Your task to perform on an android device: Open the stopwatch Image 0: 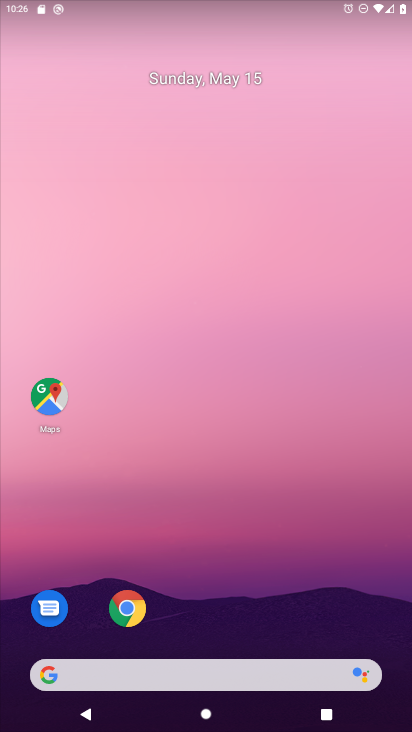
Step 0: drag from (351, 532) to (349, 106)
Your task to perform on an android device: Open the stopwatch Image 1: 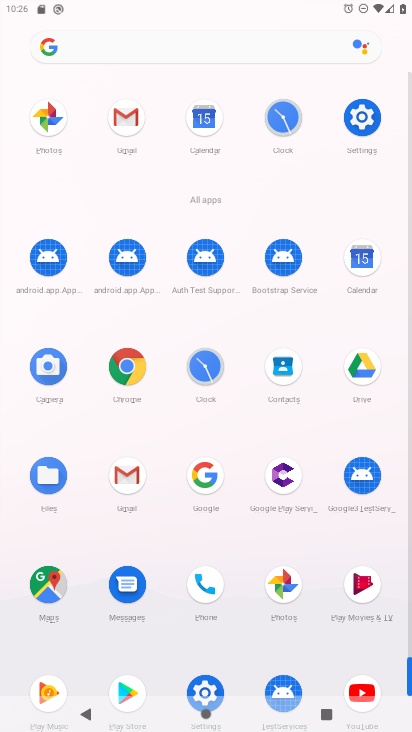
Step 1: click (283, 123)
Your task to perform on an android device: Open the stopwatch Image 2: 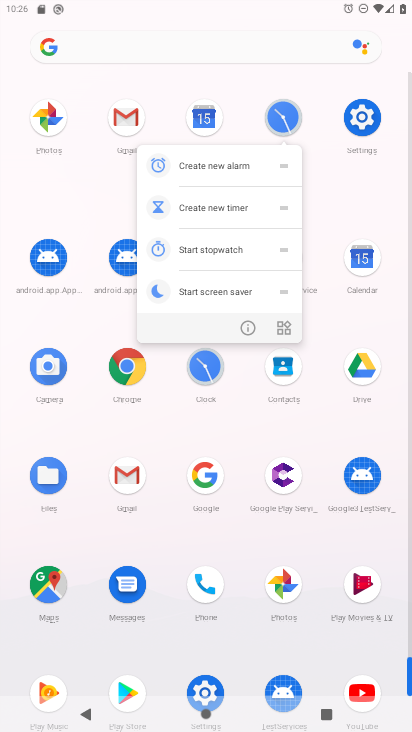
Step 2: click (288, 125)
Your task to perform on an android device: Open the stopwatch Image 3: 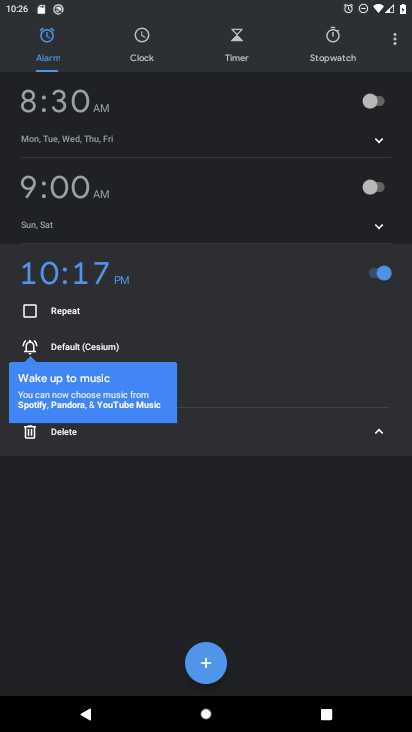
Step 3: click (328, 50)
Your task to perform on an android device: Open the stopwatch Image 4: 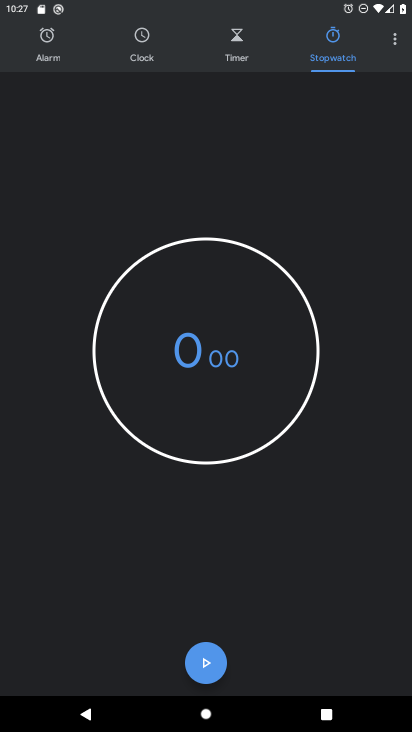
Step 4: click (209, 666)
Your task to perform on an android device: Open the stopwatch Image 5: 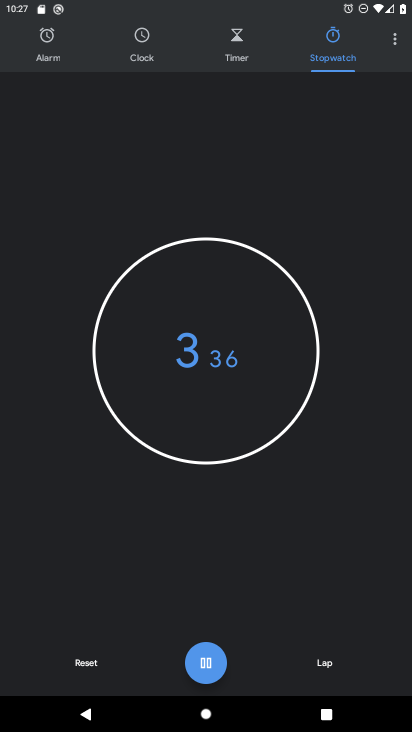
Step 5: click (209, 665)
Your task to perform on an android device: Open the stopwatch Image 6: 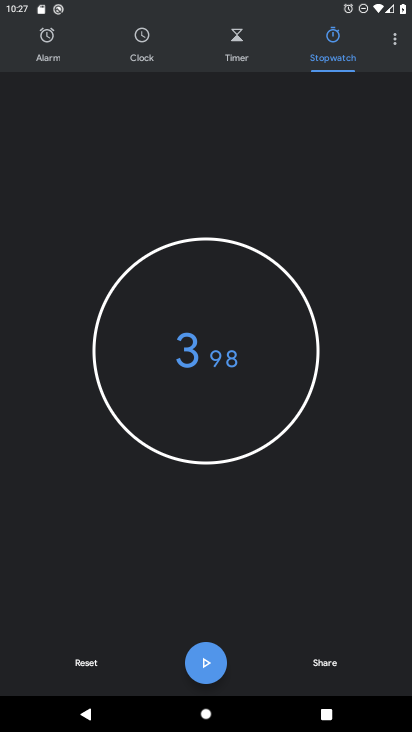
Step 6: task complete